Your task to perform on an android device: move an email to a new category in the gmail app Image 0: 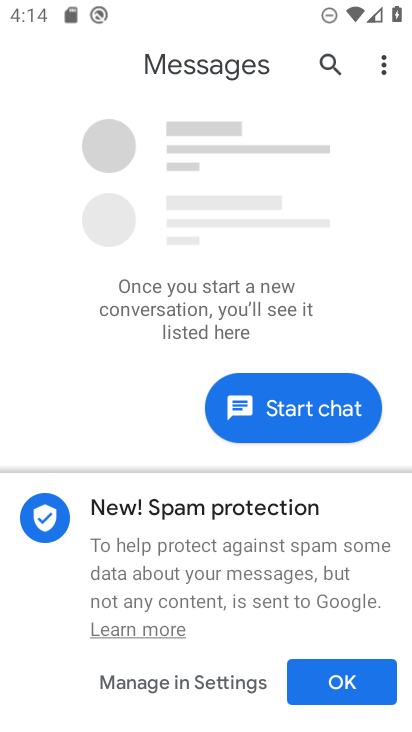
Step 0: press home button
Your task to perform on an android device: move an email to a new category in the gmail app Image 1: 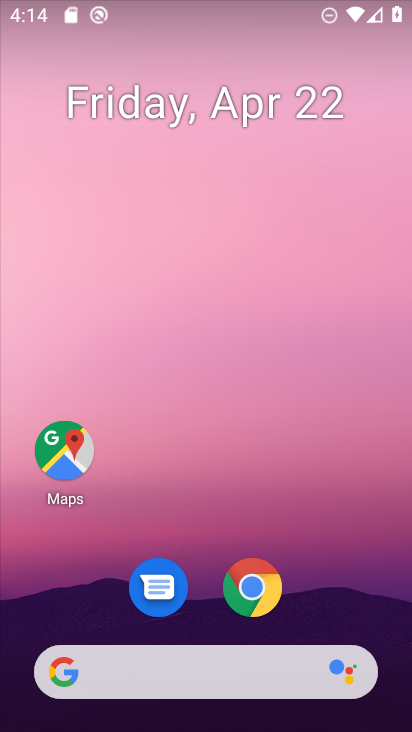
Step 1: drag from (330, 576) to (320, 119)
Your task to perform on an android device: move an email to a new category in the gmail app Image 2: 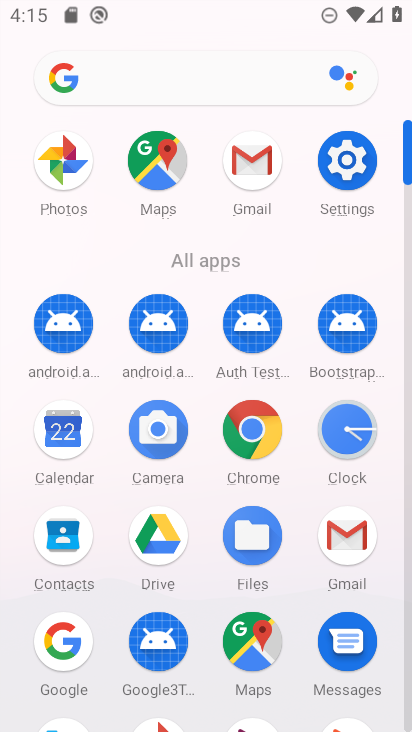
Step 2: click (244, 170)
Your task to perform on an android device: move an email to a new category in the gmail app Image 3: 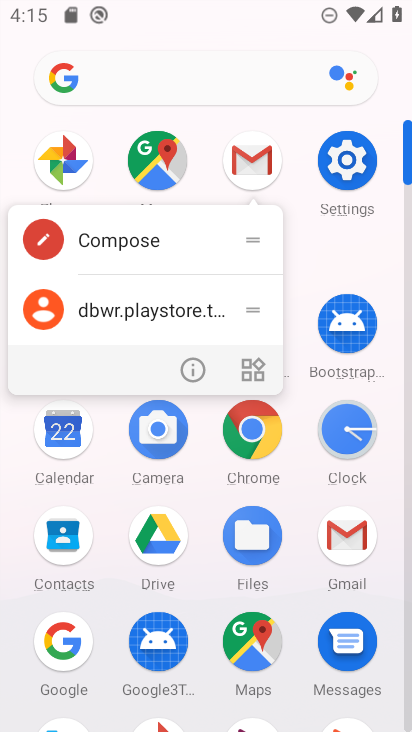
Step 3: click (251, 164)
Your task to perform on an android device: move an email to a new category in the gmail app Image 4: 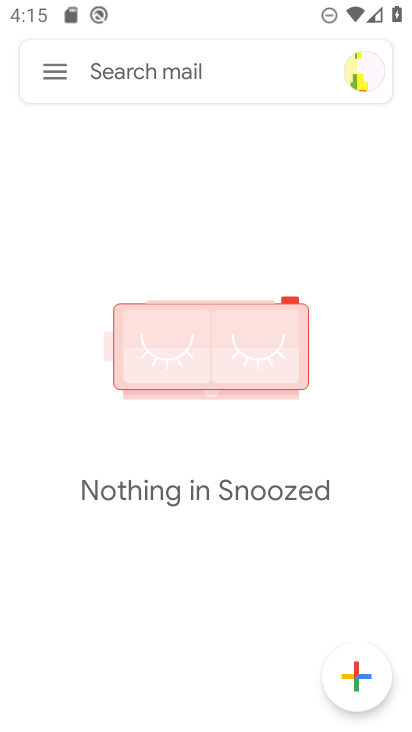
Step 4: click (59, 68)
Your task to perform on an android device: move an email to a new category in the gmail app Image 5: 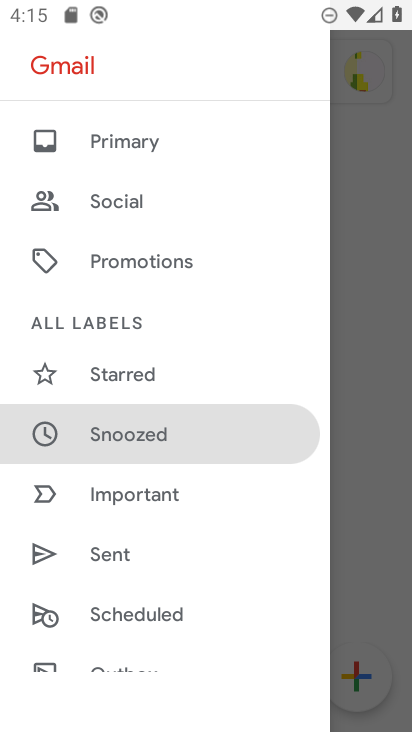
Step 5: drag from (164, 569) to (191, 150)
Your task to perform on an android device: move an email to a new category in the gmail app Image 6: 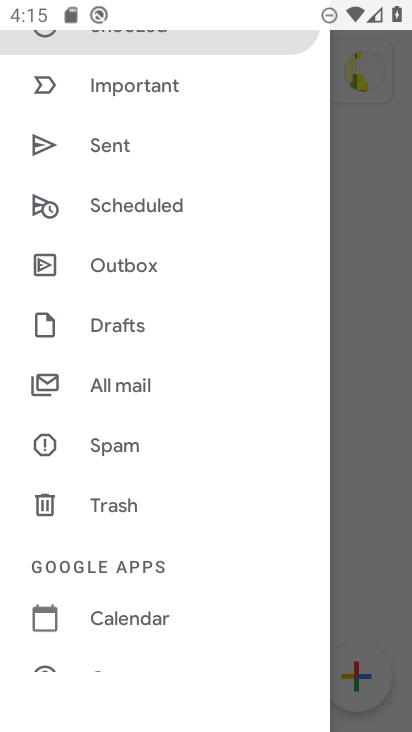
Step 6: click (159, 371)
Your task to perform on an android device: move an email to a new category in the gmail app Image 7: 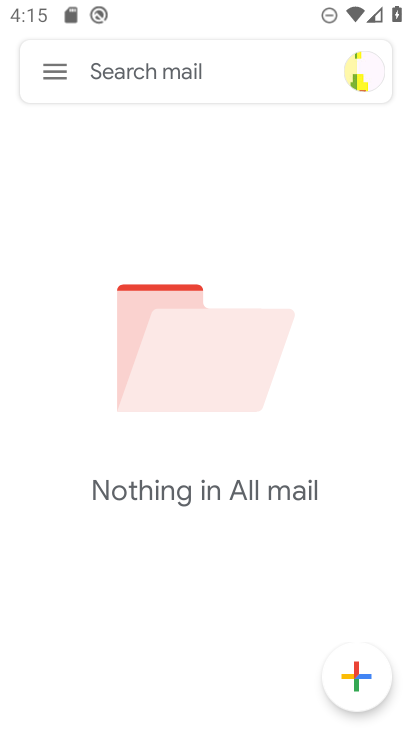
Step 7: task complete